Your task to perform on an android device: What's the weather going to be this weekend? Image 0: 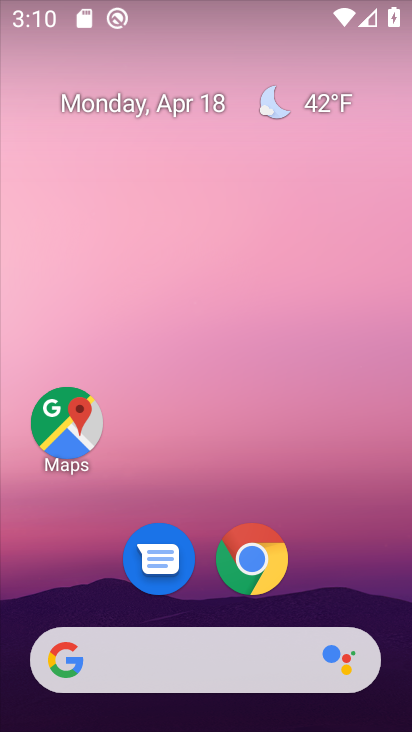
Step 0: drag from (203, 604) to (287, 174)
Your task to perform on an android device: What's the weather going to be this weekend? Image 1: 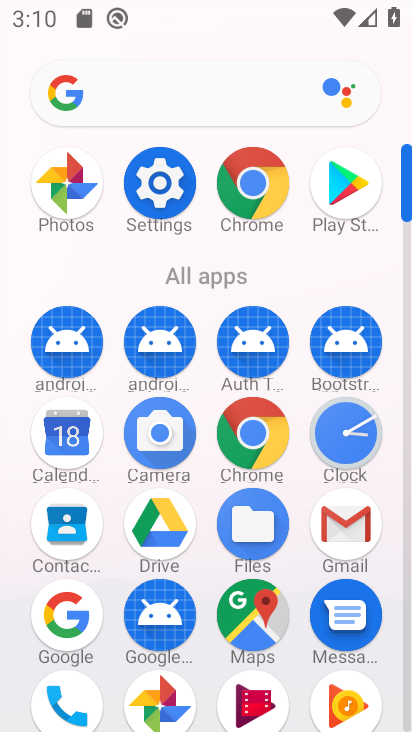
Step 1: click (256, 178)
Your task to perform on an android device: What's the weather going to be this weekend? Image 2: 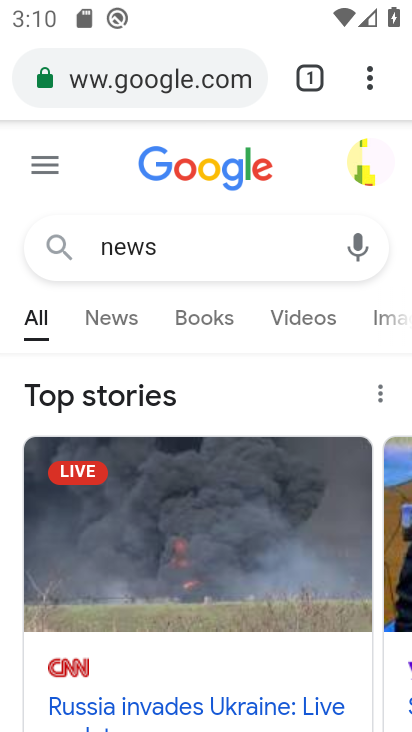
Step 2: click (177, 245)
Your task to perform on an android device: What's the weather going to be this weekend? Image 3: 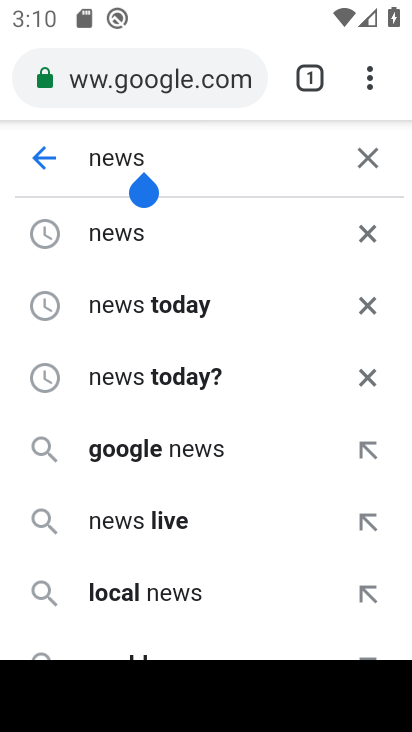
Step 3: click (371, 160)
Your task to perform on an android device: What's the weather going to be this weekend? Image 4: 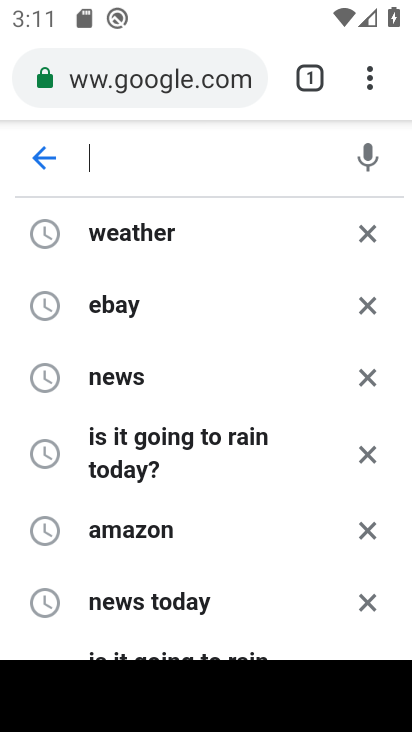
Step 4: click (186, 87)
Your task to perform on an android device: What's the weather going to be this weekend? Image 5: 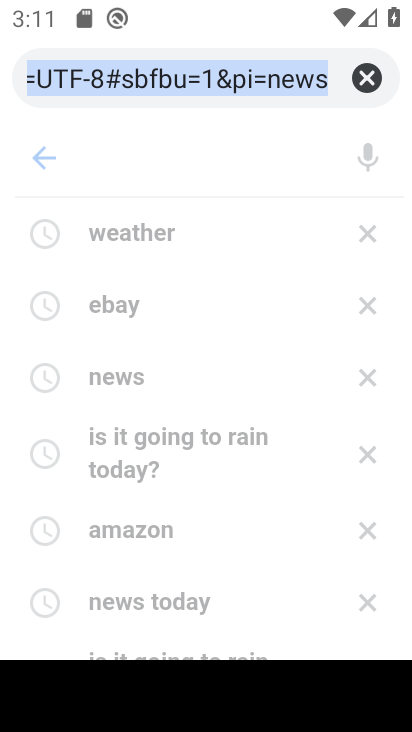
Step 5: type "what's the weather going to be this weekend"
Your task to perform on an android device: What's the weather going to be this weekend? Image 6: 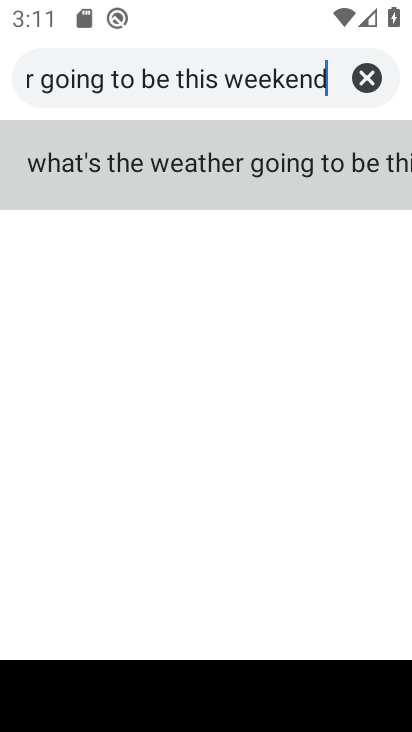
Step 6: click (201, 161)
Your task to perform on an android device: What's the weather going to be this weekend? Image 7: 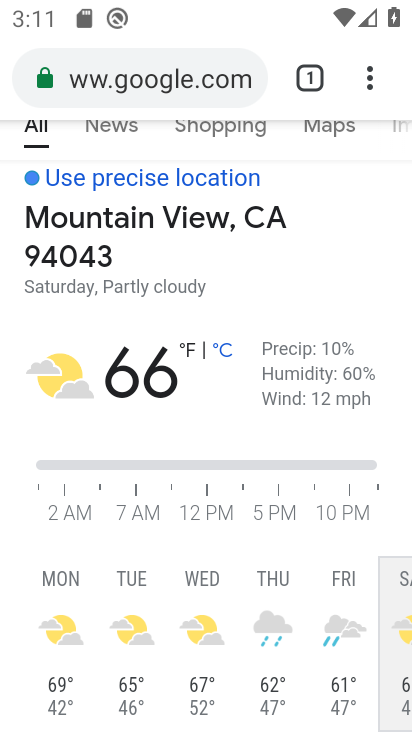
Step 7: task complete